Your task to perform on an android device: turn off airplane mode Image 0: 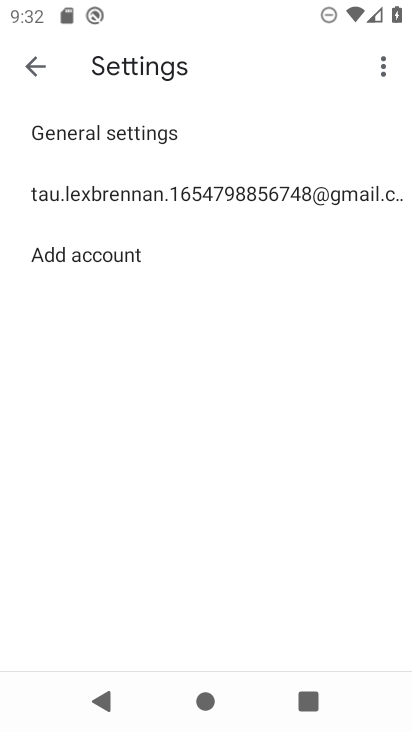
Step 0: press home button
Your task to perform on an android device: turn off airplane mode Image 1: 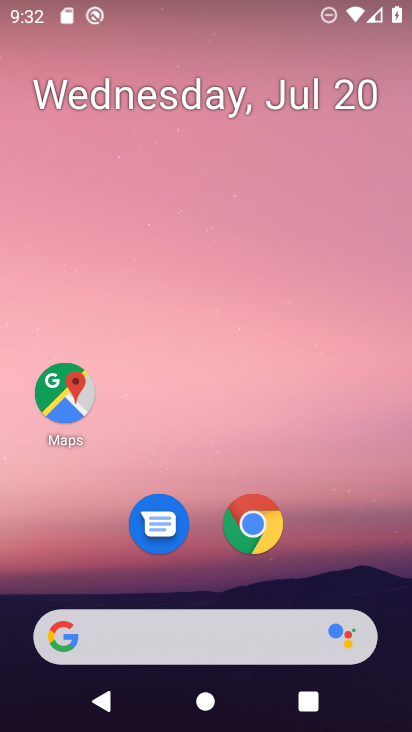
Step 1: drag from (214, 643) to (324, 105)
Your task to perform on an android device: turn off airplane mode Image 2: 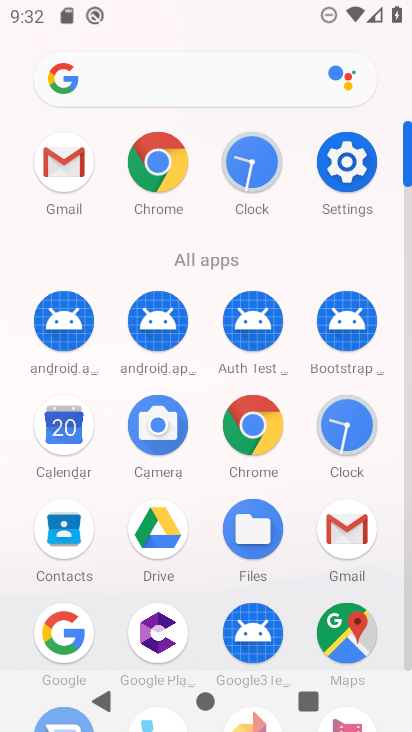
Step 2: click (344, 162)
Your task to perform on an android device: turn off airplane mode Image 3: 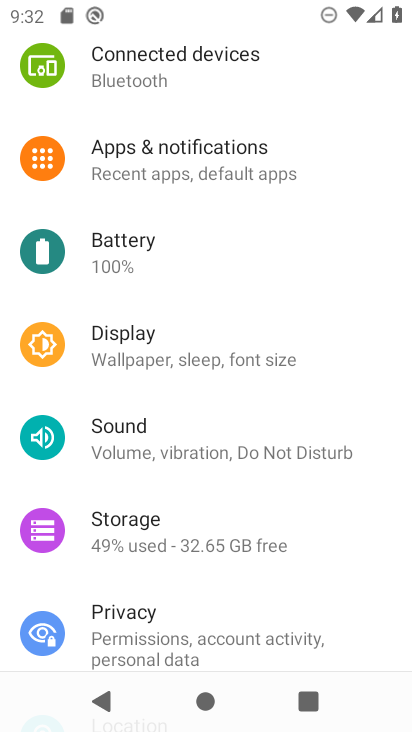
Step 3: drag from (336, 113) to (299, 573)
Your task to perform on an android device: turn off airplane mode Image 4: 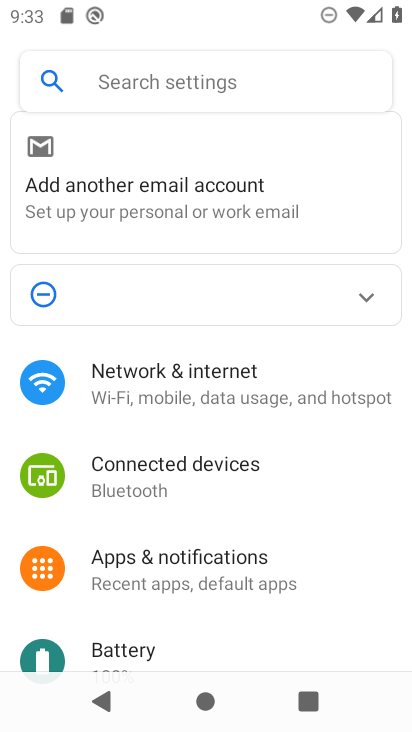
Step 4: click (180, 372)
Your task to perform on an android device: turn off airplane mode Image 5: 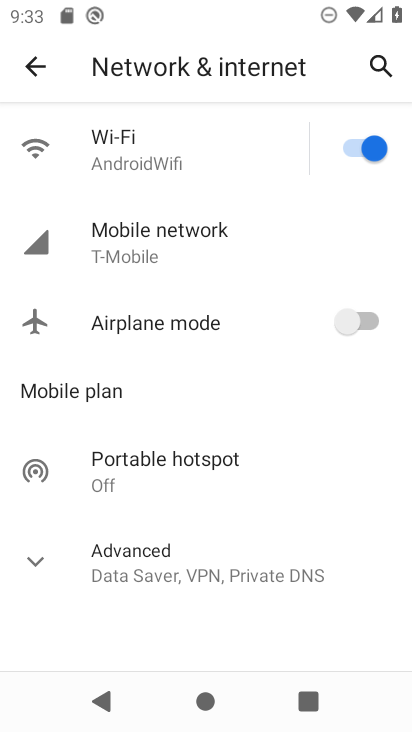
Step 5: task complete